Your task to perform on an android device: turn pop-ups on in chrome Image 0: 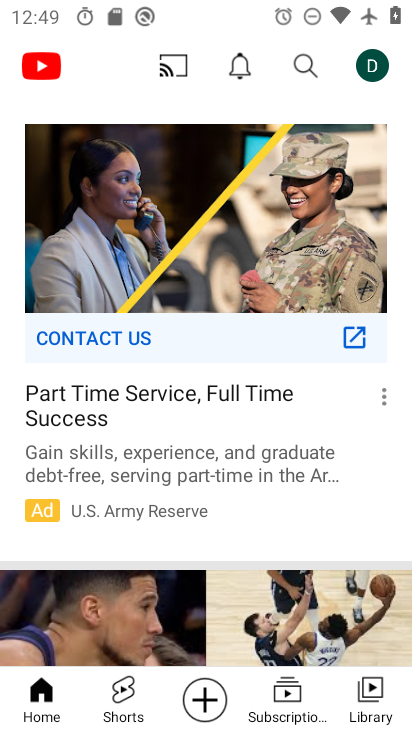
Step 0: press home button
Your task to perform on an android device: turn pop-ups on in chrome Image 1: 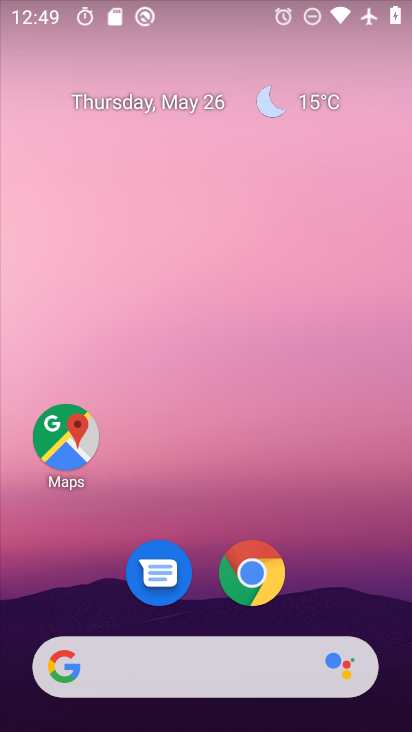
Step 1: click (255, 561)
Your task to perform on an android device: turn pop-ups on in chrome Image 2: 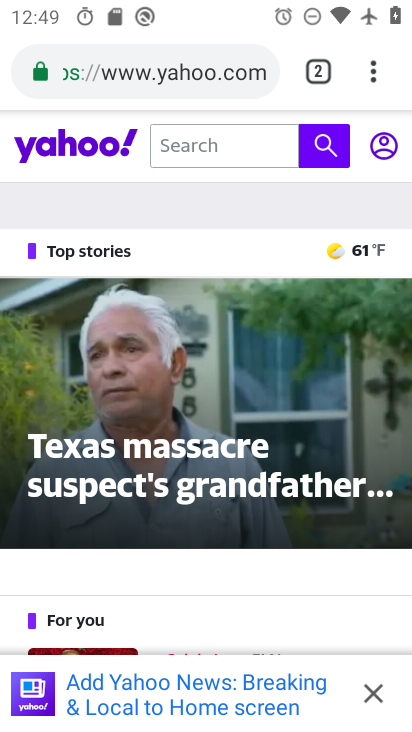
Step 2: click (375, 73)
Your task to perform on an android device: turn pop-ups on in chrome Image 3: 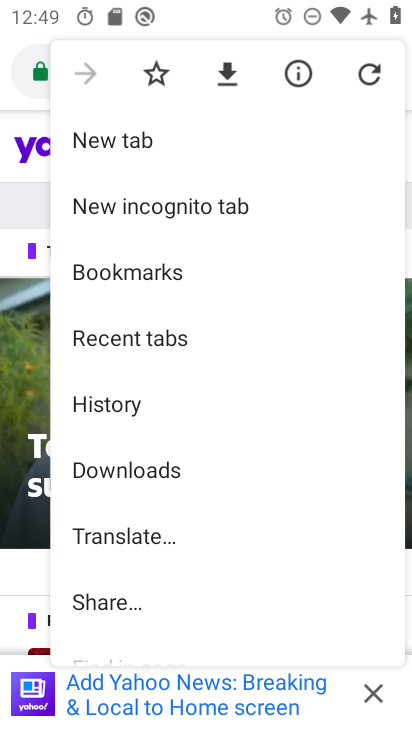
Step 3: drag from (160, 563) to (156, 107)
Your task to perform on an android device: turn pop-ups on in chrome Image 4: 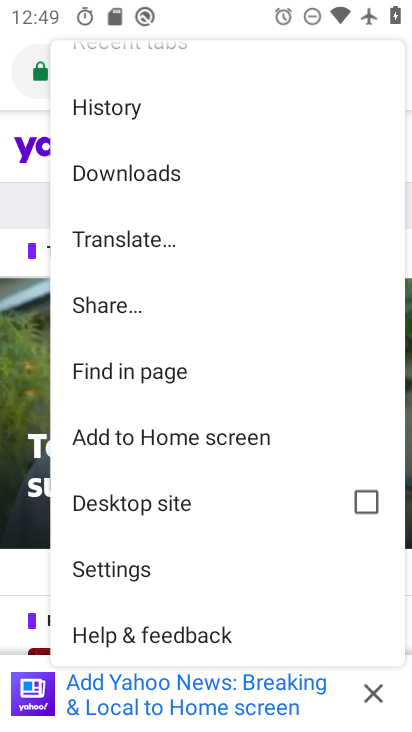
Step 4: click (112, 578)
Your task to perform on an android device: turn pop-ups on in chrome Image 5: 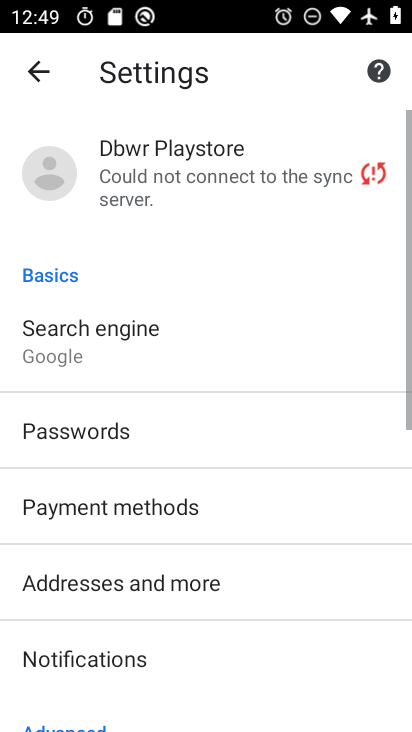
Step 5: drag from (214, 594) to (188, 174)
Your task to perform on an android device: turn pop-ups on in chrome Image 6: 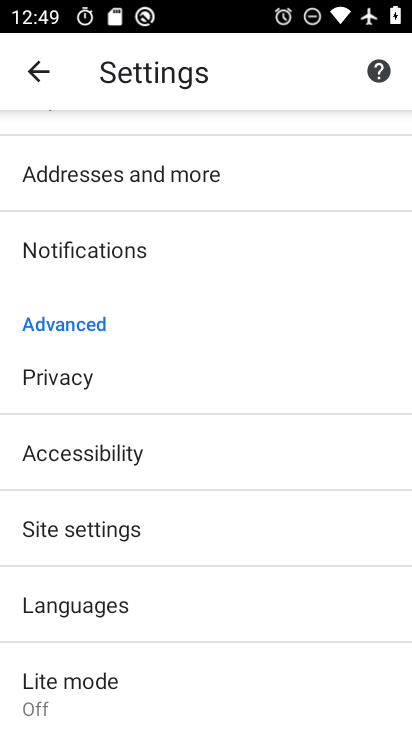
Step 6: click (111, 538)
Your task to perform on an android device: turn pop-ups on in chrome Image 7: 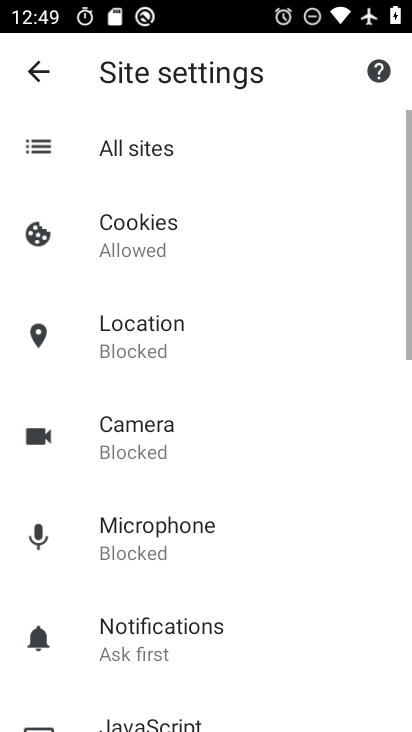
Step 7: drag from (224, 635) to (215, 357)
Your task to perform on an android device: turn pop-ups on in chrome Image 8: 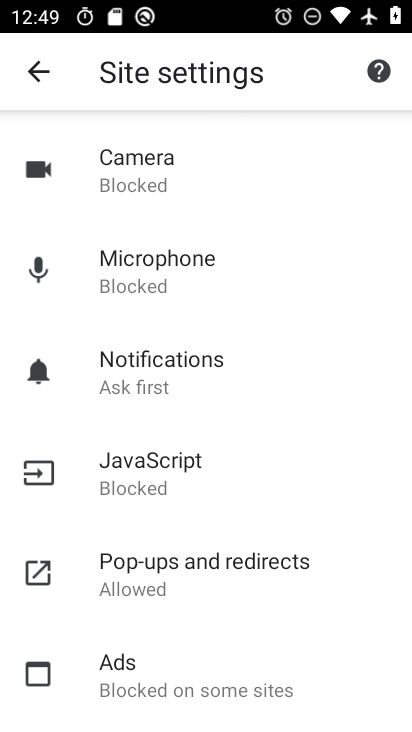
Step 8: click (145, 582)
Your task to perform on an android device: turn pop-ups on in chrome Image 9: 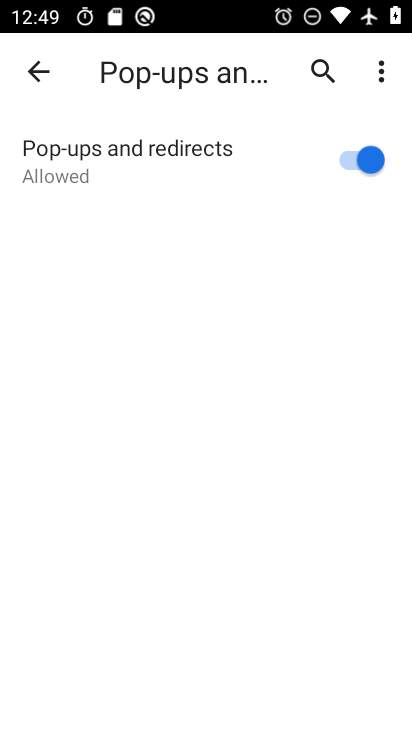
Step 9: task complete